Your task to perform on an android device: check android version Image 0: 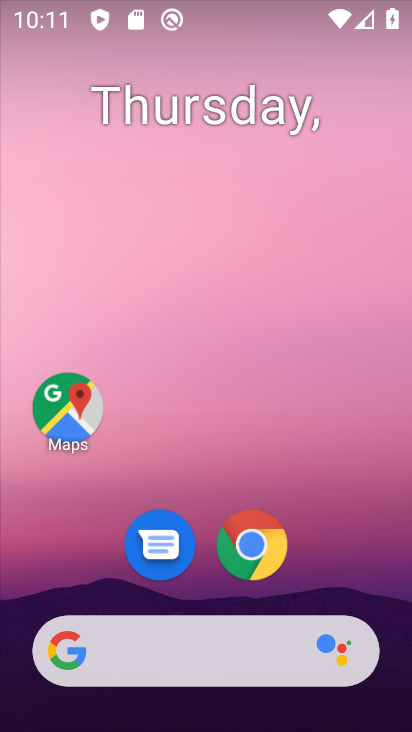
Step 0: drag from (317, 558) to (192, 156)
Your task to perform on an android device: check android version Image 1: 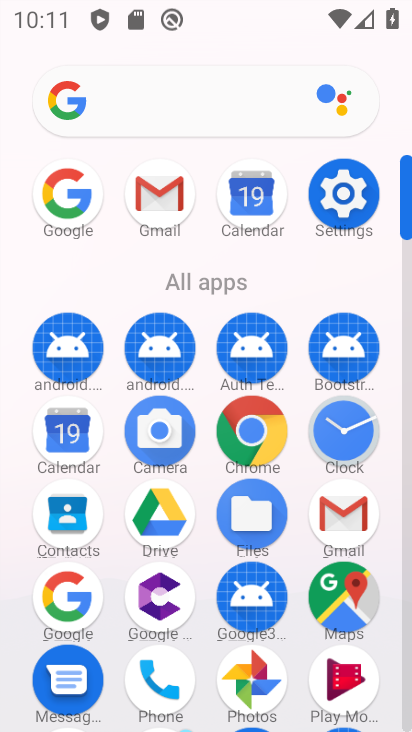
Step 1: click (344, 191)
Your task to perform on an android device: check android version Image 2: 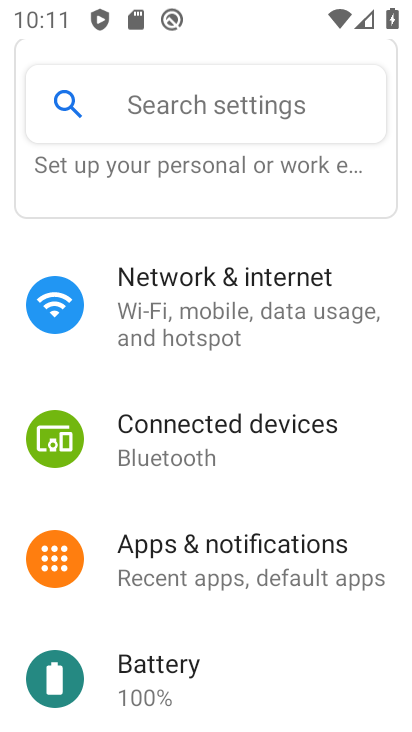
Step 2: drag from (181, 401) to (252, 270)
Your task to perform on an android device: check android version Image 3: 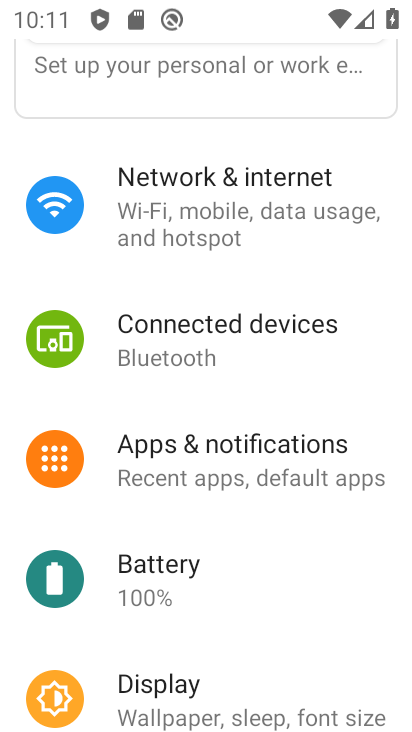
Step 3: drag from (161, 416) to (212, 314)
Your task to perform on an android device: check android version Image 4: 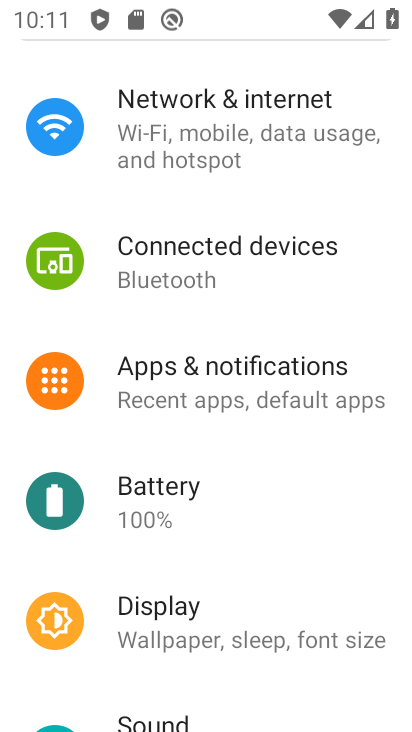
Step 4: drag from (147, 444) to (239, 329)
Your task to perform on an android device: check android version Image 5: 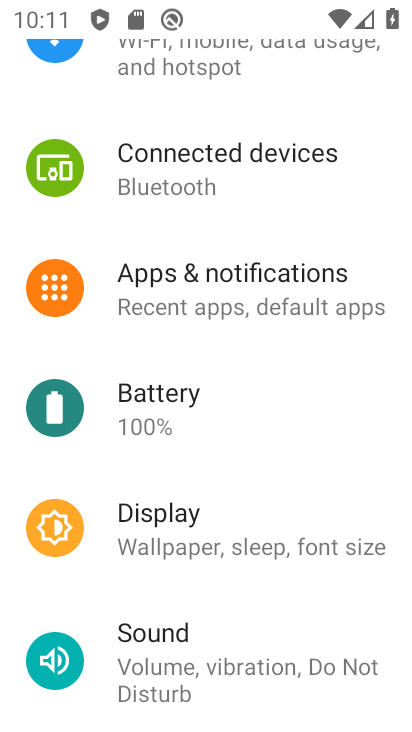
Step 5: drag from (148, 468) to (256, 307)
Your task to perform on an android device: check android version Image 6: 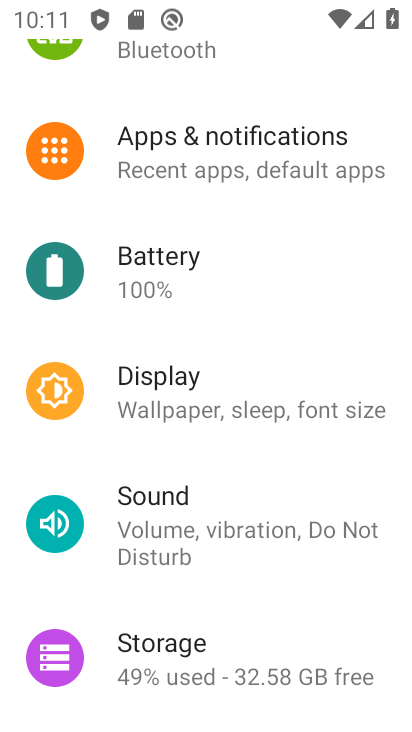
Step 6: drag from (145, 462) to (224, 342)
Your task to perform on an android device: check android version Image 7: 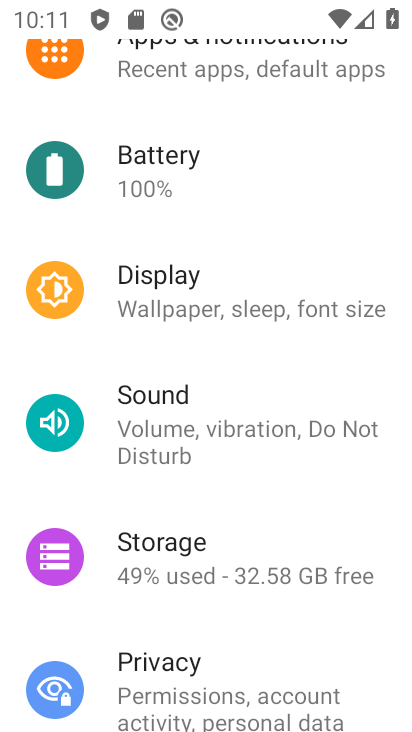
Step 7: drag from (141, 486) to (210, 362)
Your task to perform on an android device: check android version Image 8: 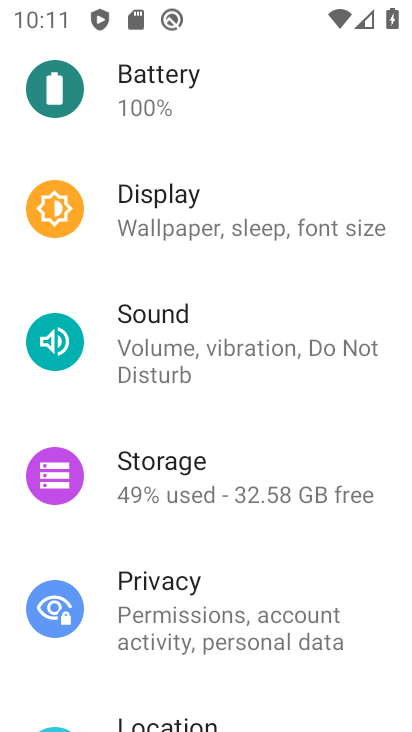
Step 8: drag from (154, 526) to (178, 387)
Your task to perform on an android device: check android version Image 9: 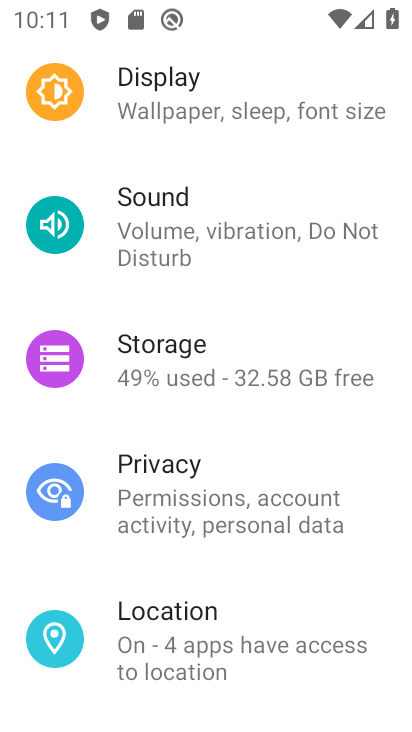
Step 9: drag from (128, 565) to (197, 433)
Your task to perform on an android device: check android version Image 10: 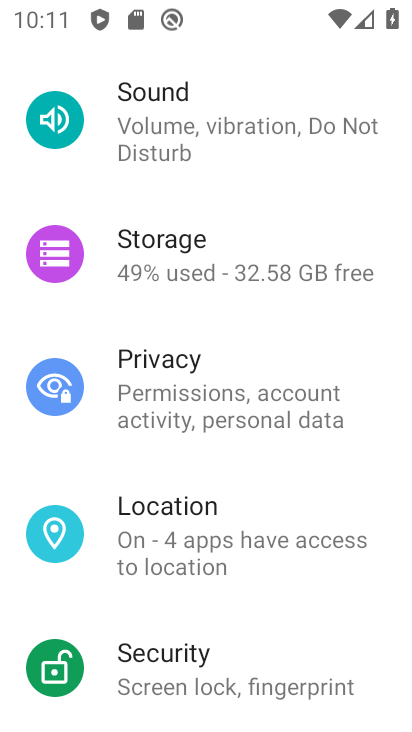
Step 10: drag from (130, 593) to (182, 457)
Your task to perform on an android device: check android version Image 11: 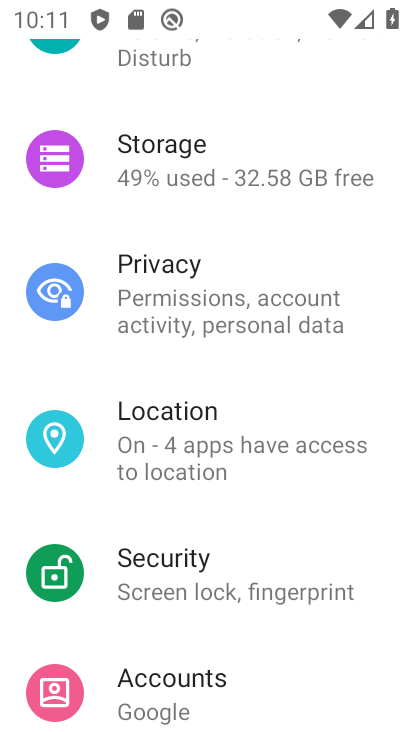
Step 11: drag from (146, 610) to (175, 498)
Your task to perform on an android device: check android version Image 12: 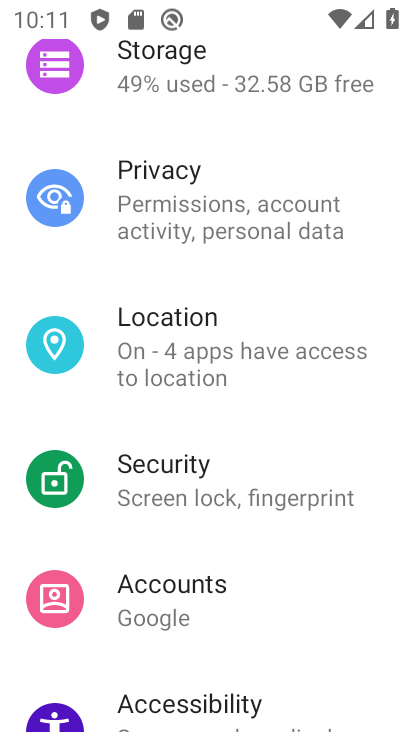
Step 12: drag from (138, 666) to (189, 514)
Your task to perform on an android device: check android version Image 13: 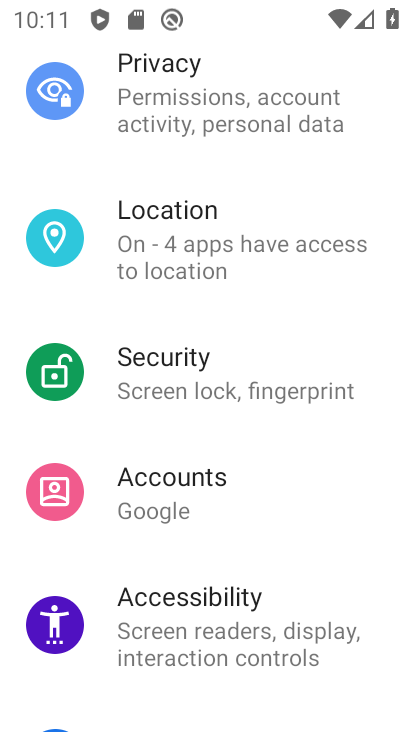
Step 13: drag from (128, 693) to (204, 557)
Your task to perform on an android device: check android version Image 14: 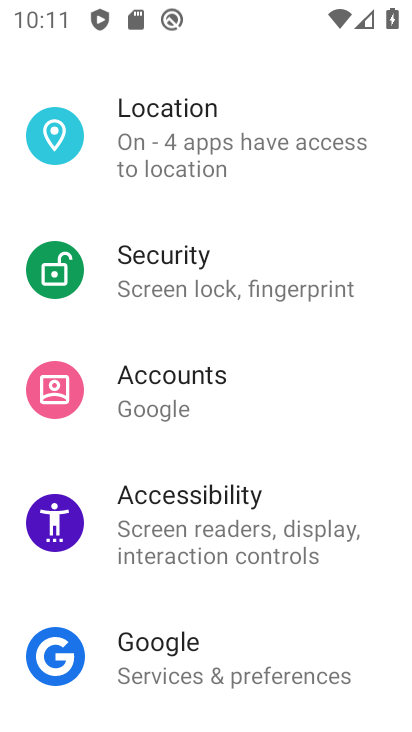
Step 14: drag from (150, 699) to (233, 569)
Your task to perform on an android device: check android version Image 15: 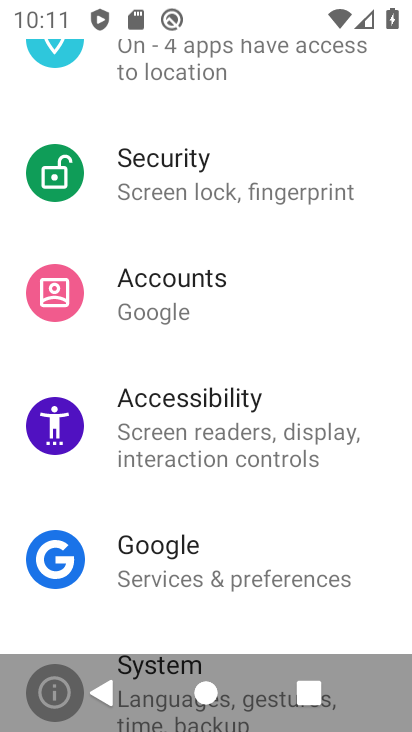
Step 15: drag from (166, 615) to (266, 477)
Your task to perform on an android device: check android version Image 16: 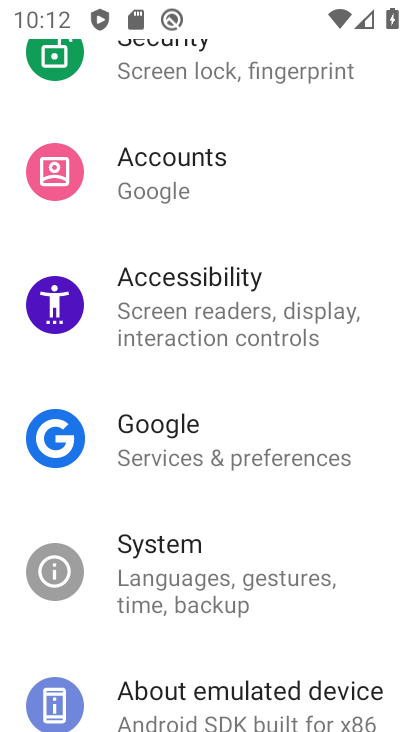
Step 16: drag from (155, 636) to (258, 496)
Your task to perform on an android device: check android version Image 17: 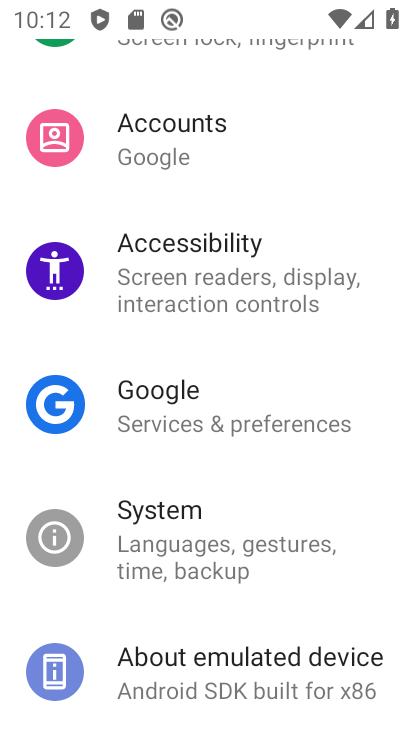
Step 17: click (211, 659)
Your task to perform on an android device: check android version Image 18: 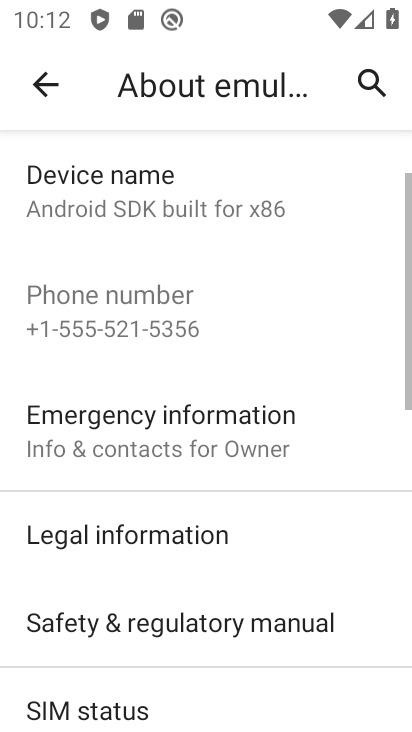
Step 18: drag from (180, 581) to (221, 492)
Your task to perform on an android device: check android version Image 19: 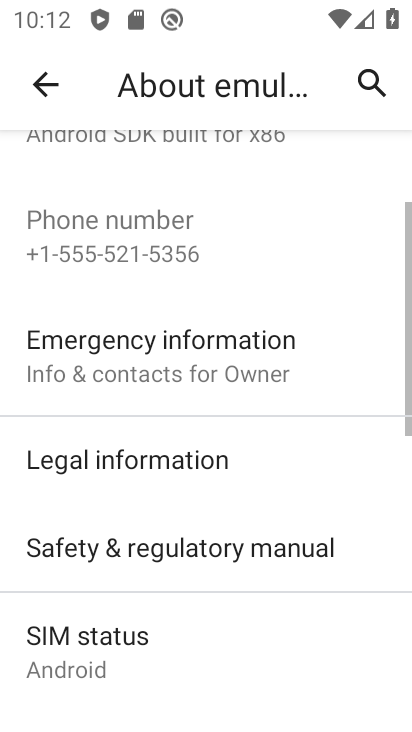
Step 19: drag from (187, 603) to (242, 508)
Your task to perform on an android device: check android version Image 20: 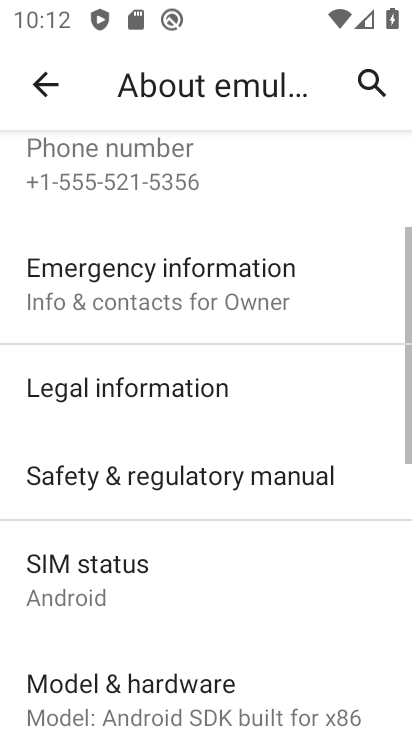
Step 20: drag from (167, 614) to (262, 503)
Your task to perform on an android device: check android version Image 21: 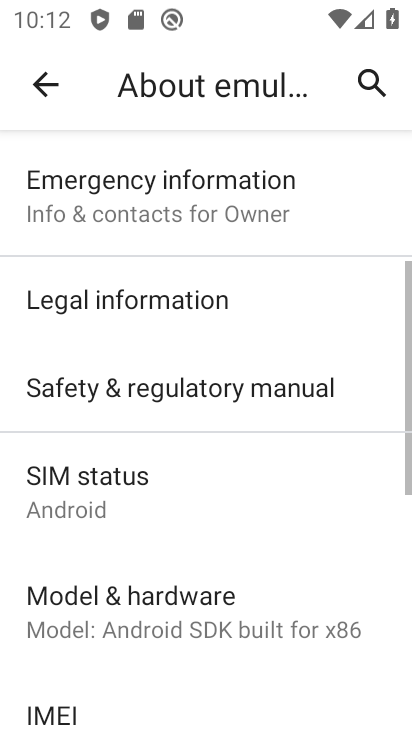
Step 21: drag from (152, 647) to (235, 522)
Your task to perform on an android device: check android version Image 22: 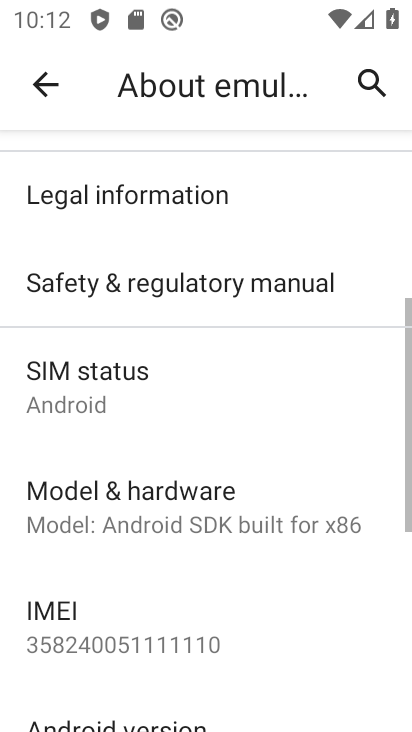
Step 22: drag from (135, 579) to (200, 475)
Your task to perform on an android device: check android version Image 23: 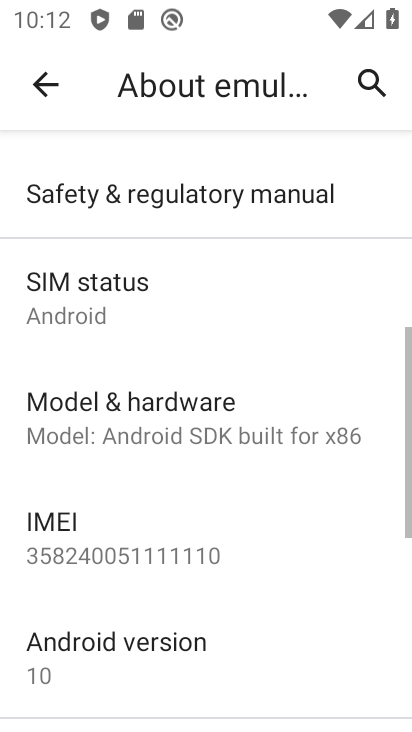
Step 23: drag from (95, 597) to (204, 469)
Your task to perform on an android device: check android version Image 24: 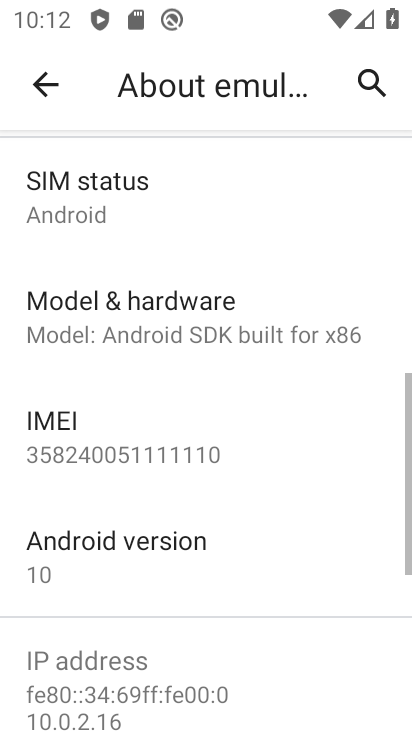
Step 24: click (137, 539)
Your task to perform on an android device: check android version Image 25: 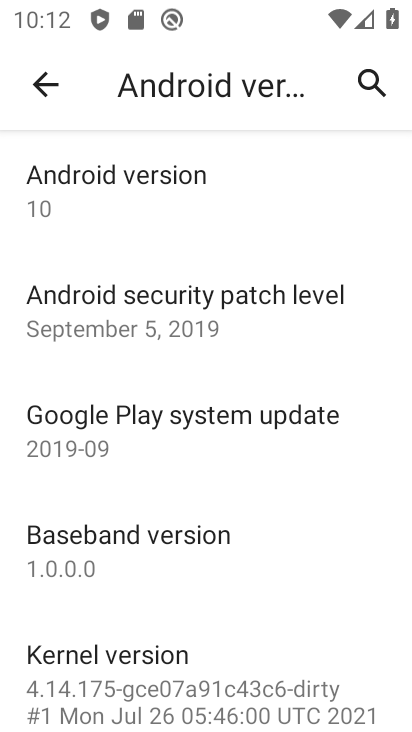
Step 25: task complete